Your task to perform on an android device: Open calendar and show me the first week of next month Image 0: 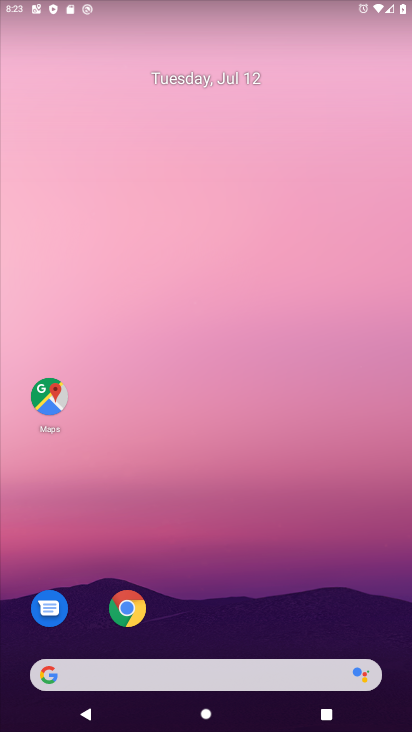
Step 0: drag from (222, 600) to (267, 60)
Your task to perform on an android device: Open calendar and show me the first week of next month Image 1: 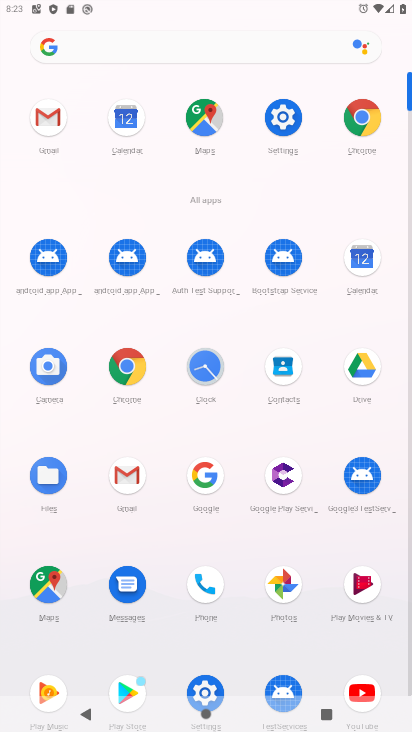
Step 1: click (363, 249)
Your task to perform on an android device: Open calendar and show me the first week of next month Image 2: 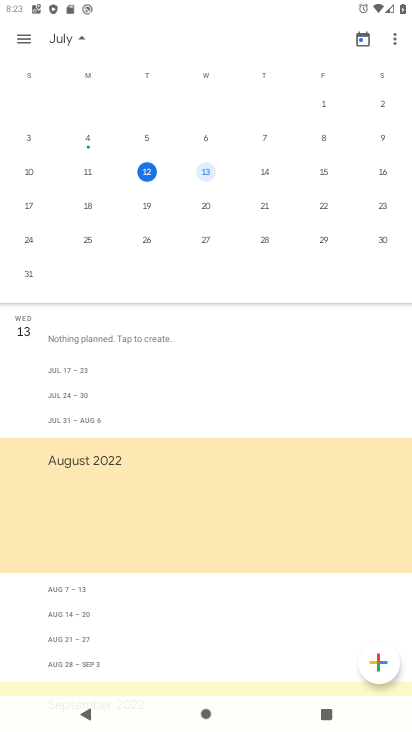
Step 2: task complete